Your task to perform on an android device: turn notification dots off Image 0: 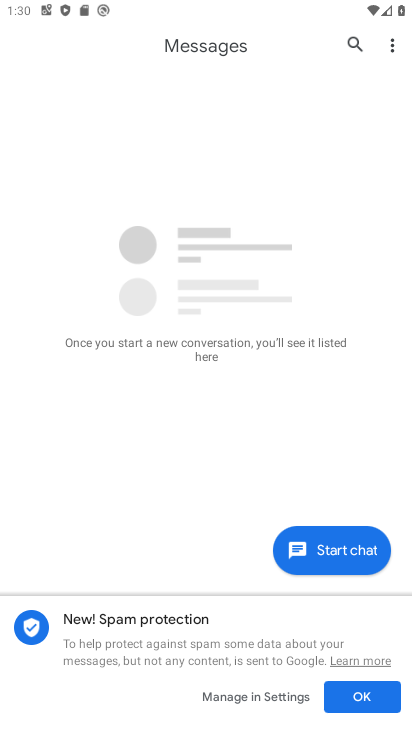
Step 0: press back button
Your task to perform on an android device: turn notification dots off Image 1: 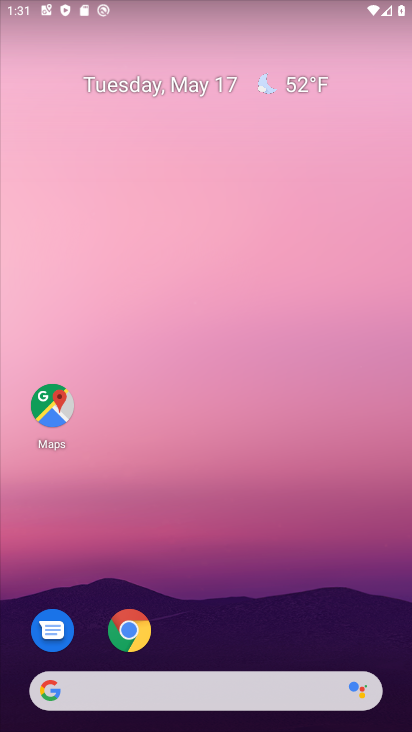
Step 1: drag from (273, 584) to (305, 68)
Your task to perform on an android device: turn notification dots off Image 2: 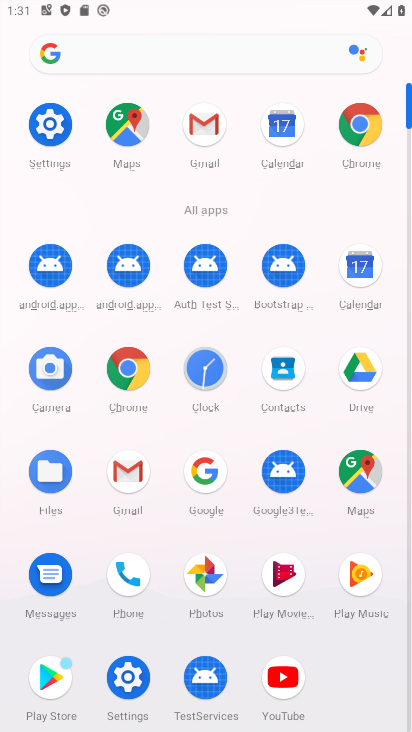
Step 2: click (55, 124)
Your task to perform on an android device: turn notification dots off Image 3: 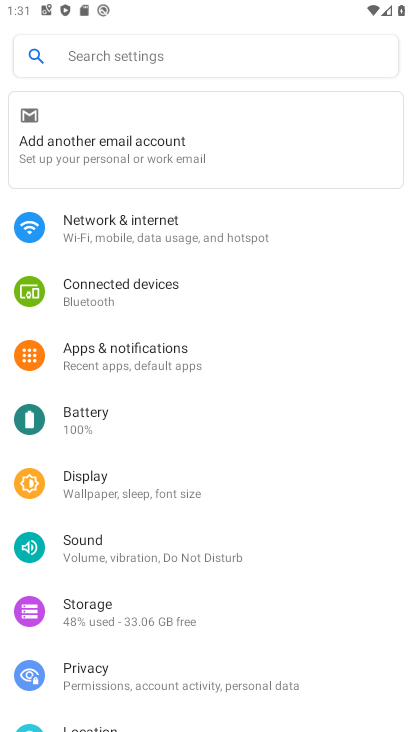
Step 3: click (137, 362)
Your task to perform on an android device: turn notification dots off Image 4: 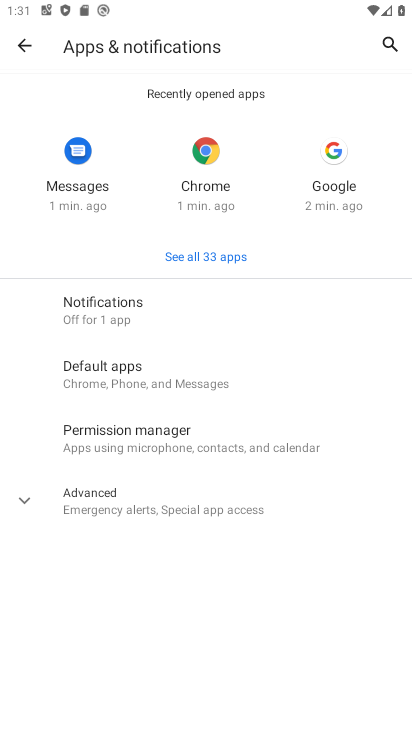
Step 4: click (134, 306)
Your task to perform on an android device: turn notification dots off Image 5: 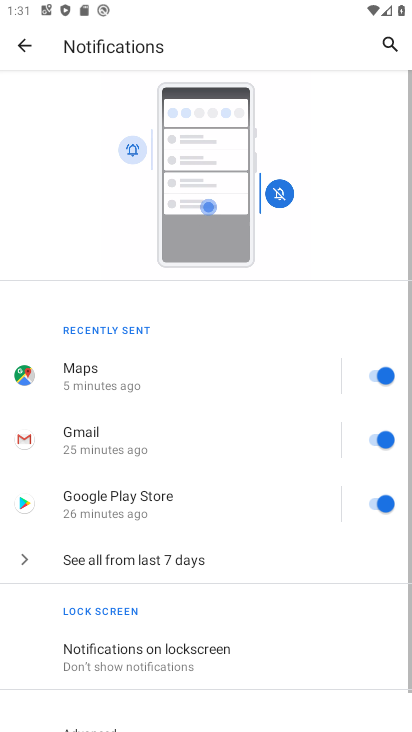
Step 5: drag from (201, 608) to (262, 101)
Your task to perform on an android device: turn notification dots off Image 6: 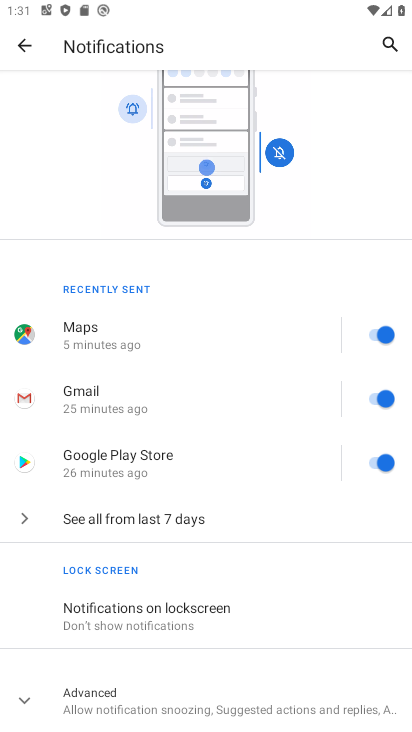
Step 6: click (142, 698)
Your task to perform on an android device: turn notification dots off Image 7: 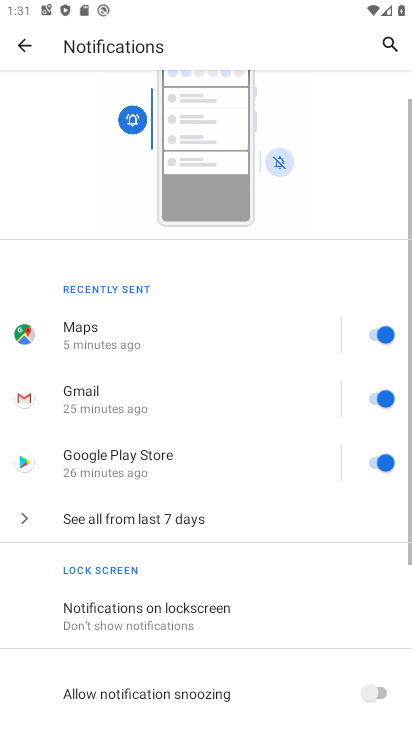
Step 7: drag from (179, 654) to (290, 232)
Your task to perform on an android device: turn notification dots off Image 8: 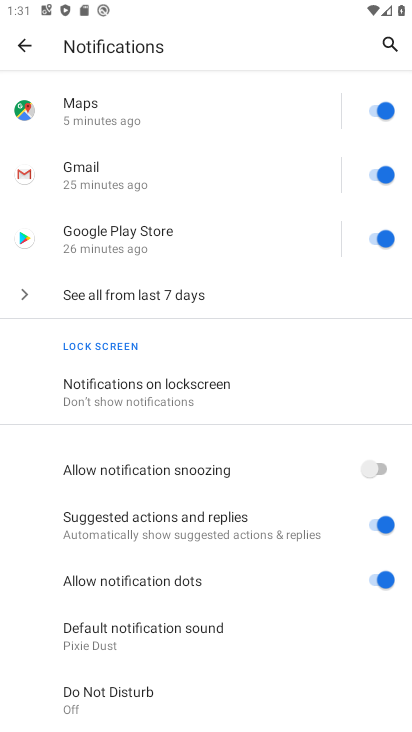
Step 8: click (381, 580)
Your task to perform on an android device: turn notification dots off Image 9: 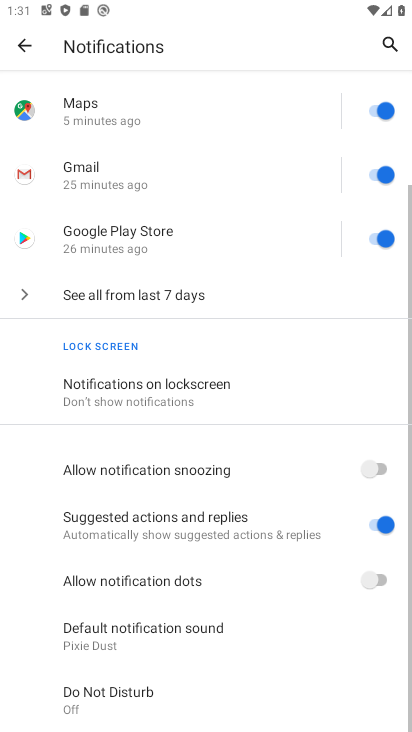
Step 9: task complete